Your task to perform on an android device: Open eBay Image 0: 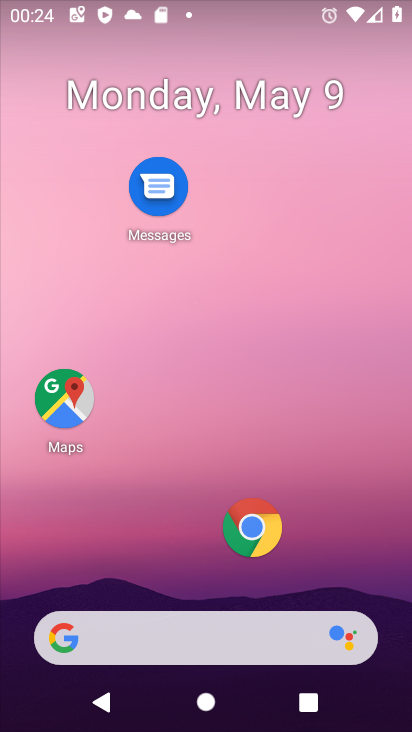
Step 0: drag from (177, 583) to (220, 101)
Your task to perform on an android device: Open eBay Image 1: 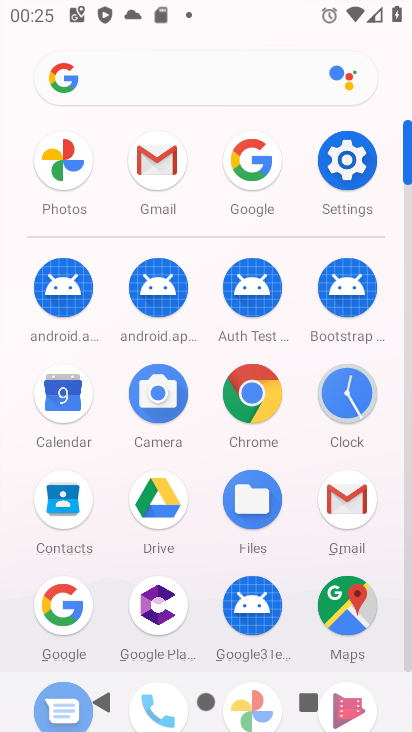
Step 1: click (257, 160)
Your task to perform on an android device: Open eBay Image 2: 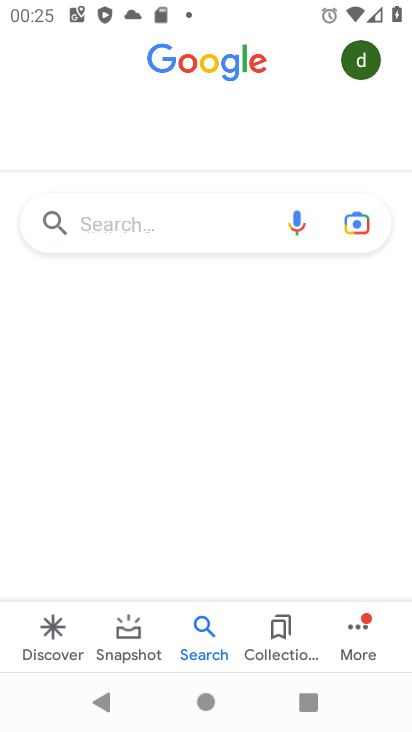
Step 2: click (171, 226)
Your task to perform on an android device: Open eBay Image 3: 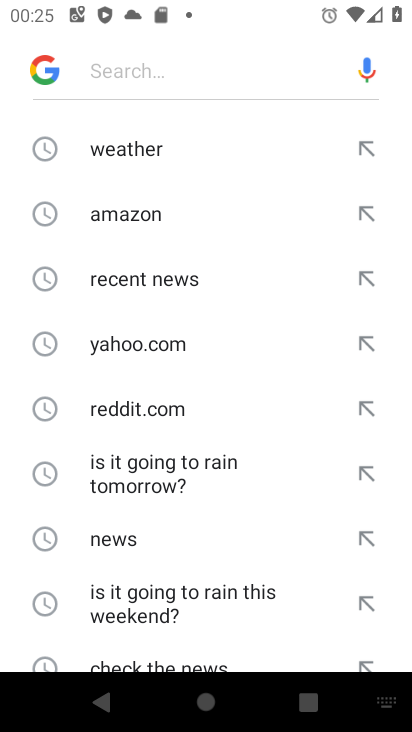
Step 3: type "ebay"
Your task to perform on an android device: Open eBay Image 4: 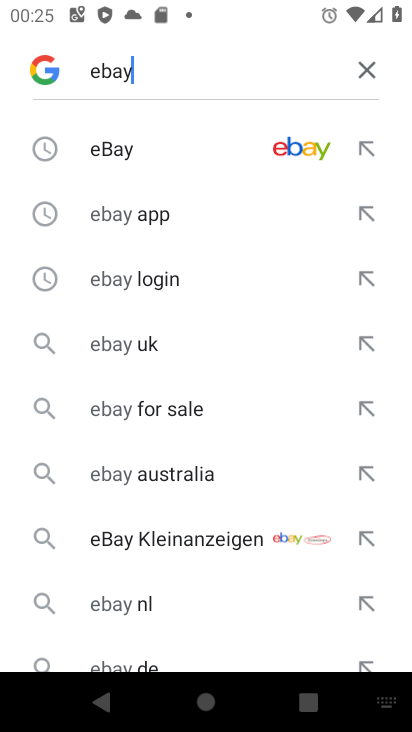
Step 4: click (163, 152)
Your task to perform on an android device: Open eBay Image 5: 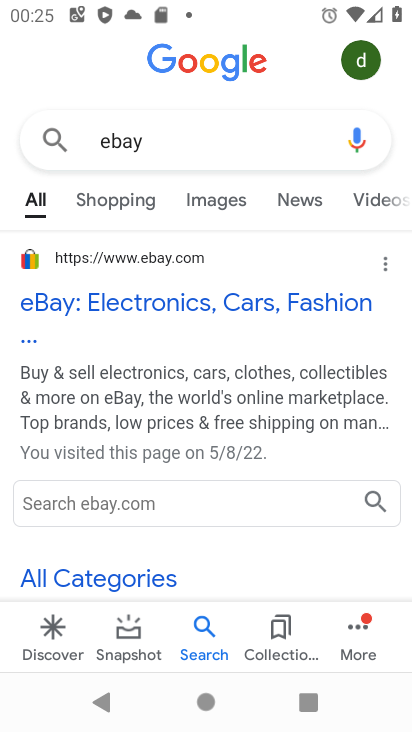
Step 5: click (206, 313)
Your task to perform on an android device: Open eBay Image 6: 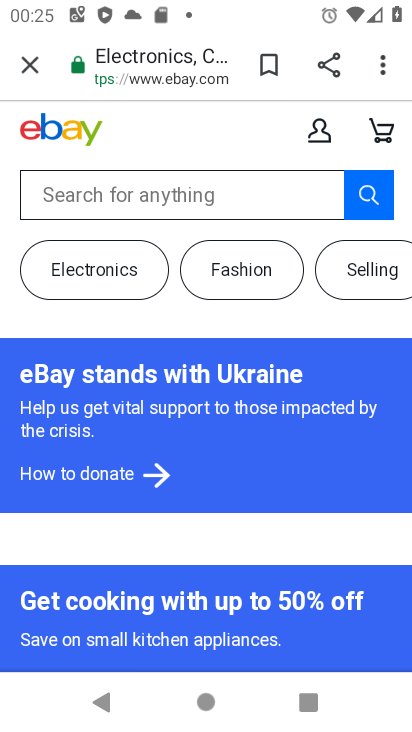
Step 6: task complete